Your task to perform on an android device: turn on data saver in the chrome app Image 0: 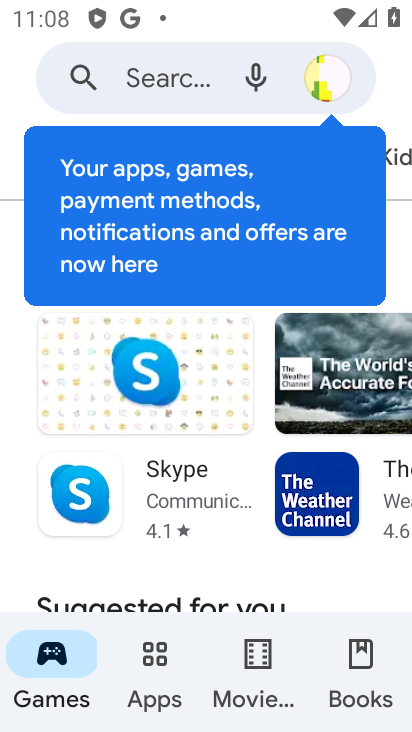
Step 0: press home button
Your task to perform on an android device: turn on data saver in the chrome app Image 1: 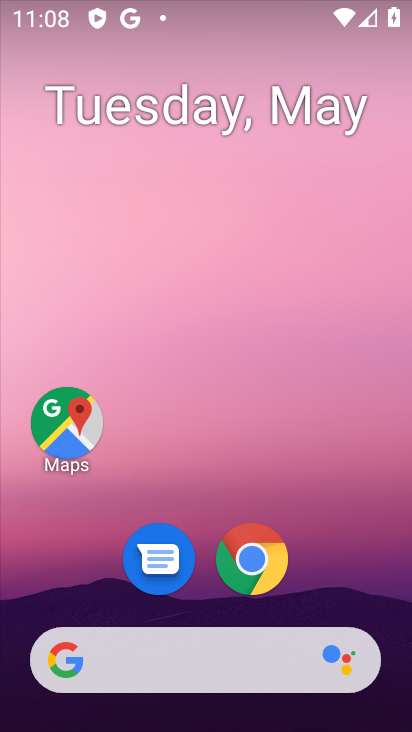
Step 1: drag from (362, 521) to (3, 507)
Your task to perform on an android device: turn on data saver in the chrome app Image 2: 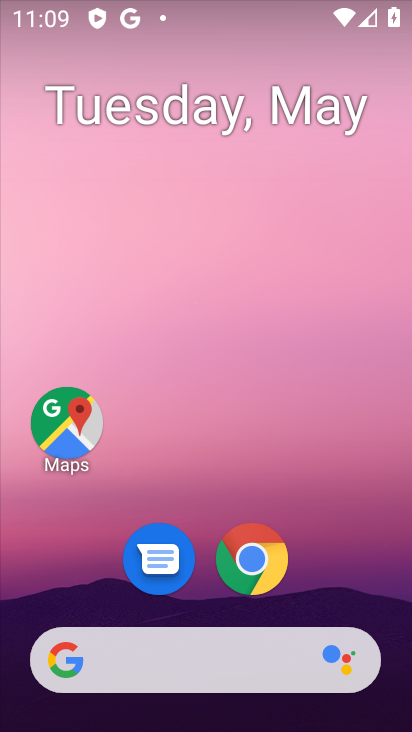
Step 2: click (269, 566)
Your task to perform on an android device: turn on data saver in the chrome app Image 3: 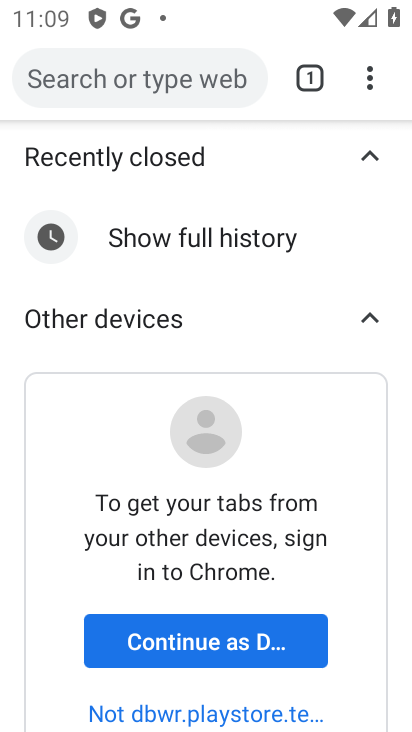
Step 3: drag from (384, 87) to (100, 646)
Your task to perform on an android device: turn on data saver in the chrome app Image 4: 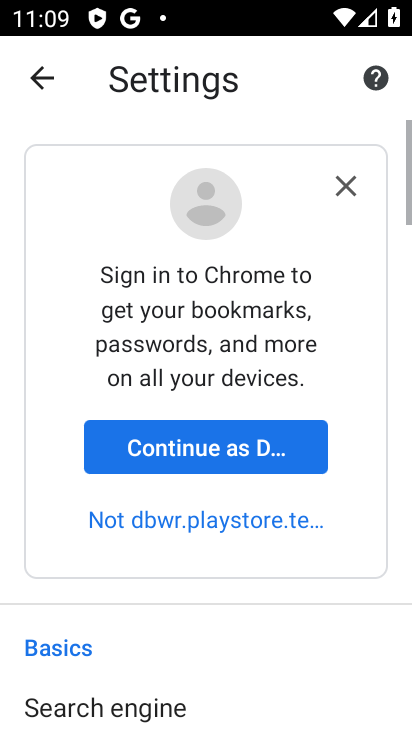
Step 4: drag from (131, 642) to (145, 189)
Your task to perform on an android device: turn on data saver in the chrome app Image 5: 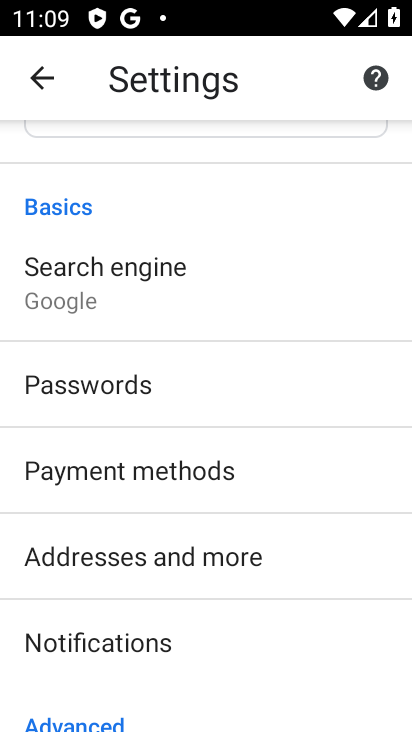
Step 5: drag from (142, 626) to (181, 268)
Your task to perform on an android device: turn on data saver in the chrome app Image 6: 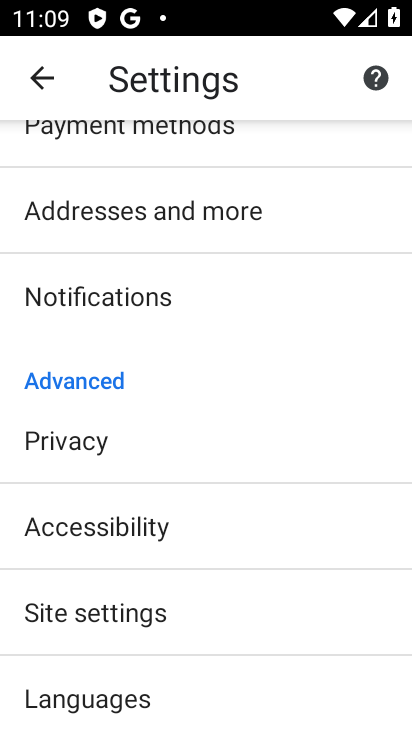
Step 6: drag from (122, 610) to (93, 368)
Your task to perform on an android device: turn on data saver in the chrome app Image 7: 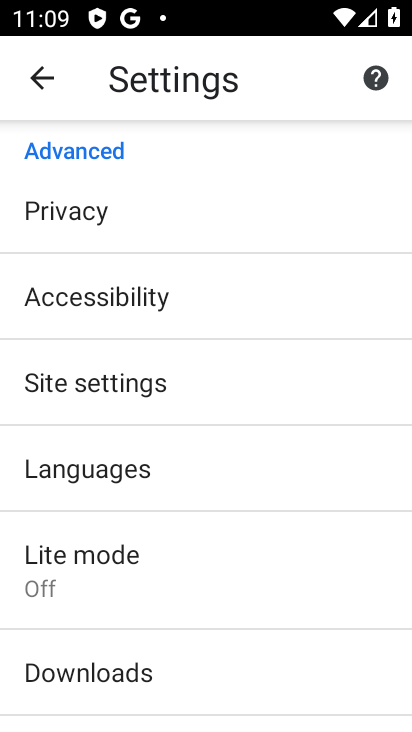
Step 7: click (77, 565)
Your task to perform on an android device: turn on data saver in the chrome app Image 8: 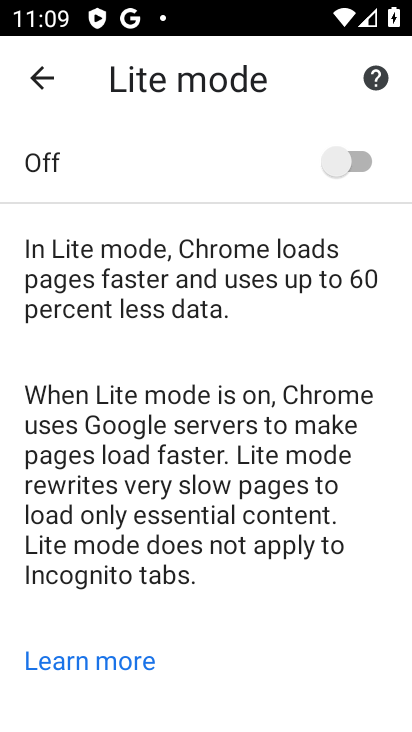
Step 8: click (349, 175)
Your task to perform on an android device: turn on data saver in the chrome app Image 9: 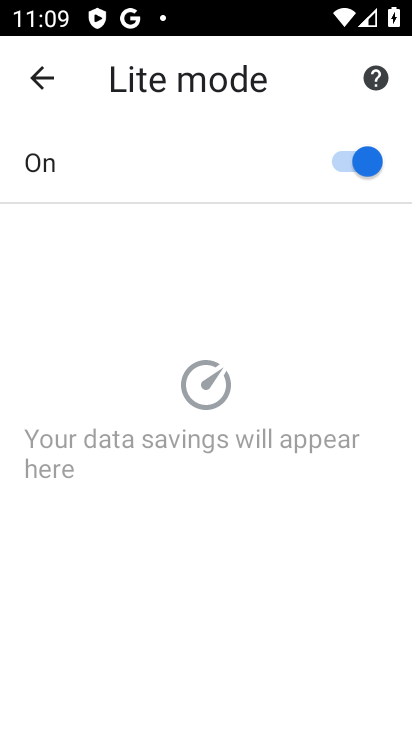
Step 9: task complete